Your task to perform on an android device: allow notifications from all sites in the chrome app Image 0: 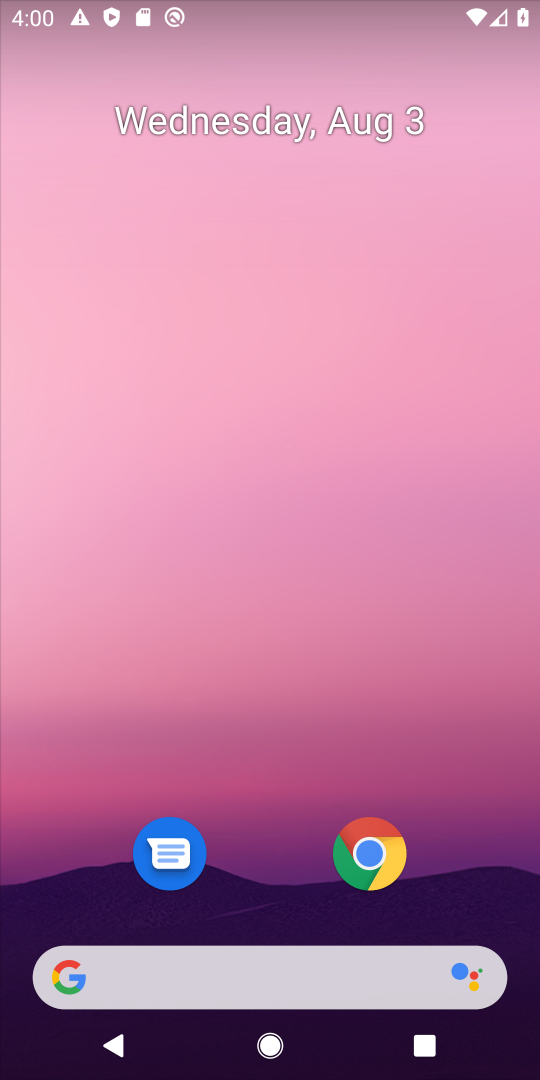
Step 0: drag from (269, 903) to (283, 21)
Your task to perform on an android device: allow notifications from all sites in the chrome app Image 1: 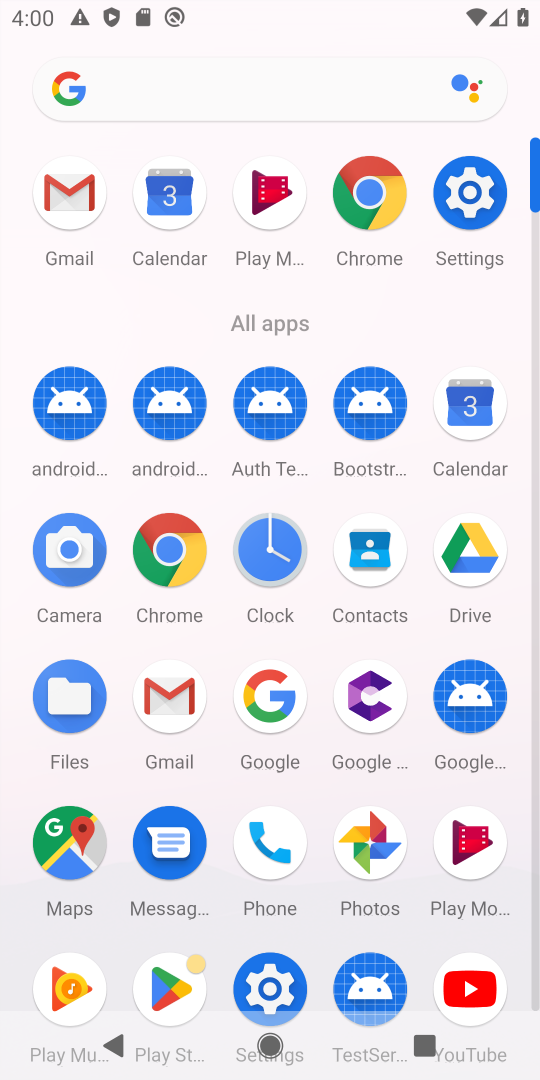
Step 1: click (375, 184)
Your task to perform on an android device: allow notifications from all sites in the chrome app Image 2: 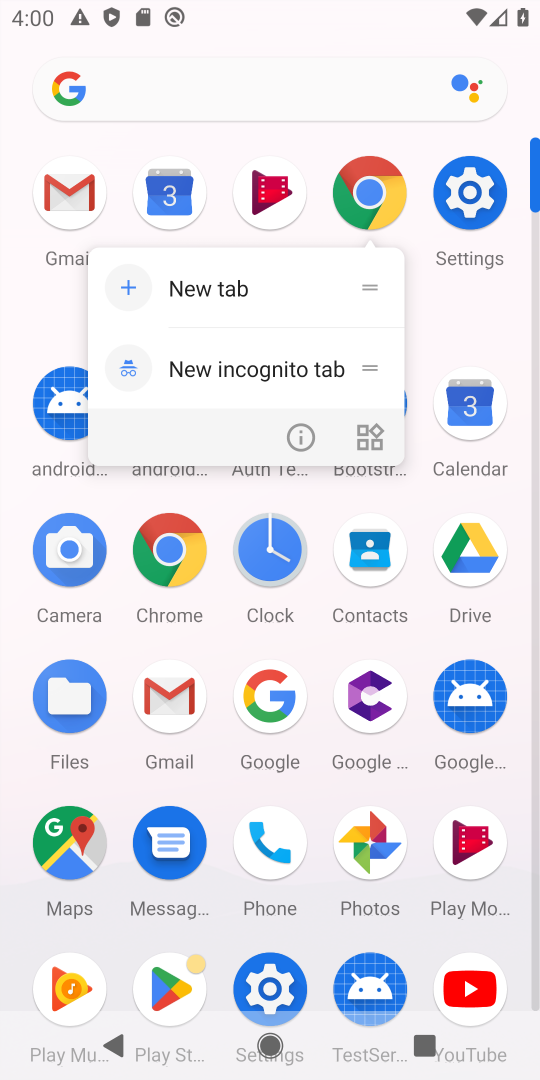
Step 2: click (374, 196)
Your task to perform on an android device: allow notifications from all sites in the chrome app Image 3: 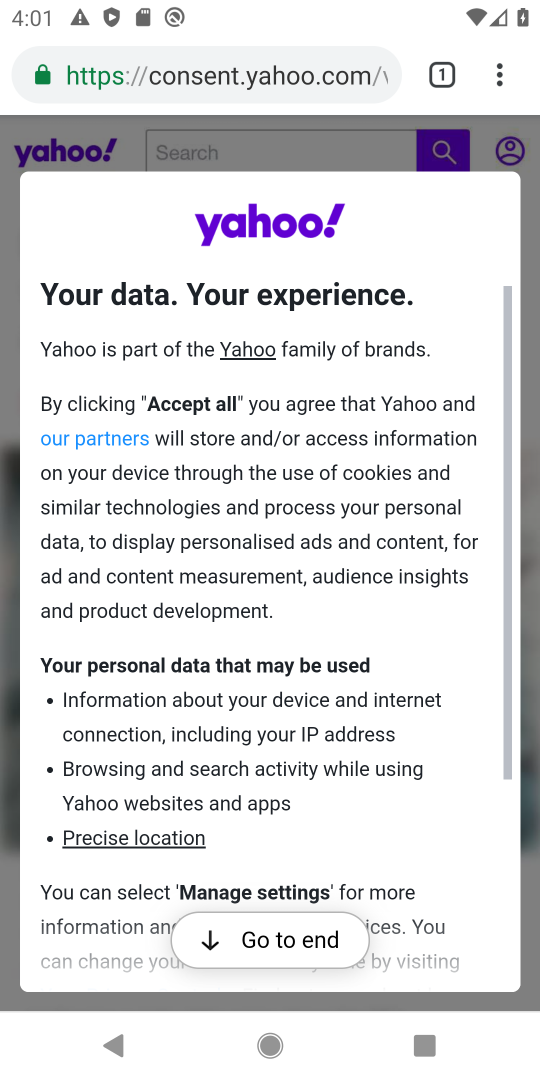
Step 3: click (501, 85)
Your task to perform on an android device: allow notifications from all sites in the chrome app Image 4: 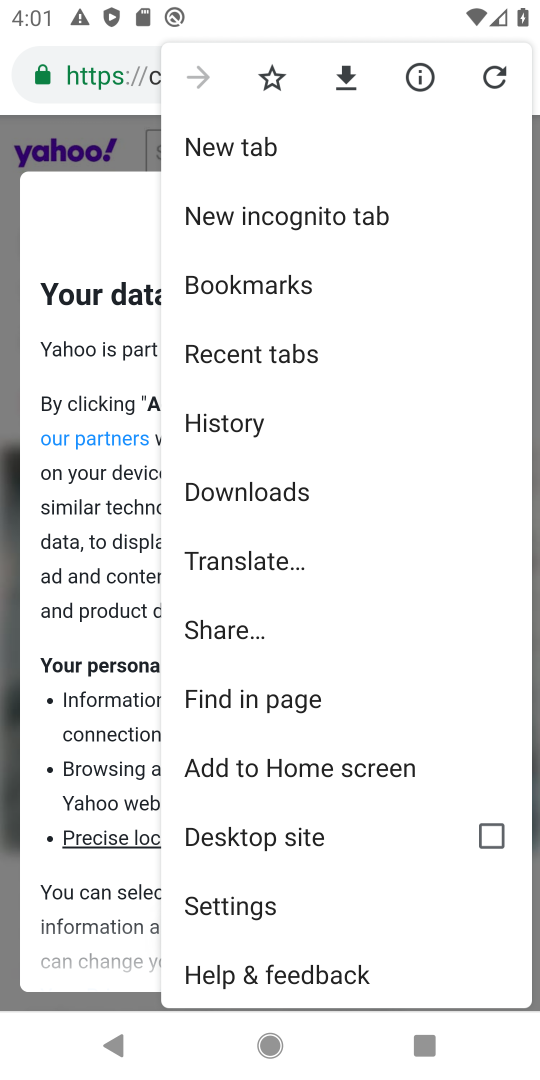
Step 4: click (234, 898)
Your task to perform on an android device: allow notifications from all sites in the chrome app Image 5: 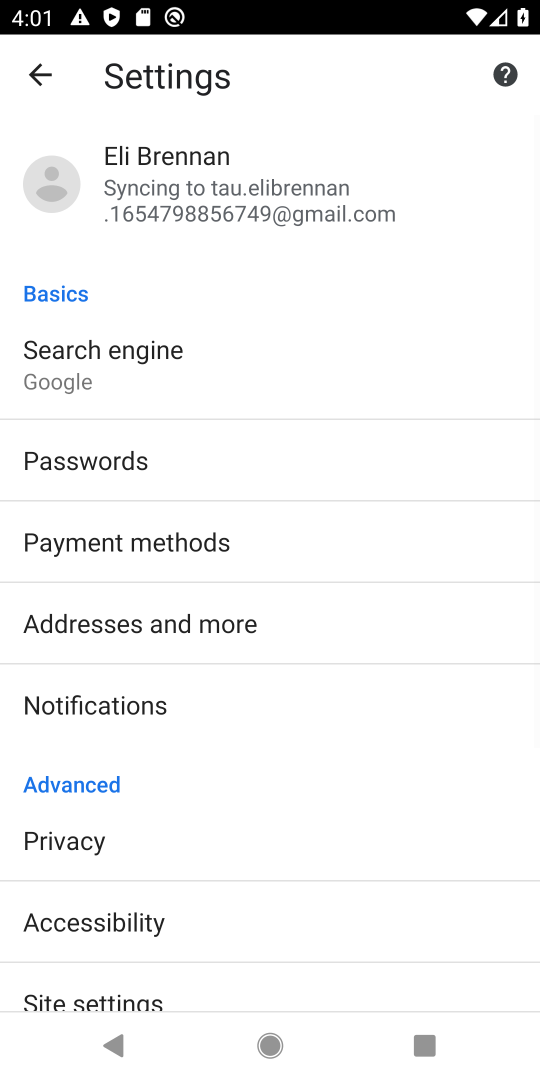
Step 5: drag from (156, 910) to (155, 328)
Your task to perform on an android device: allow notifications from all sites in the chrome app Image 6: 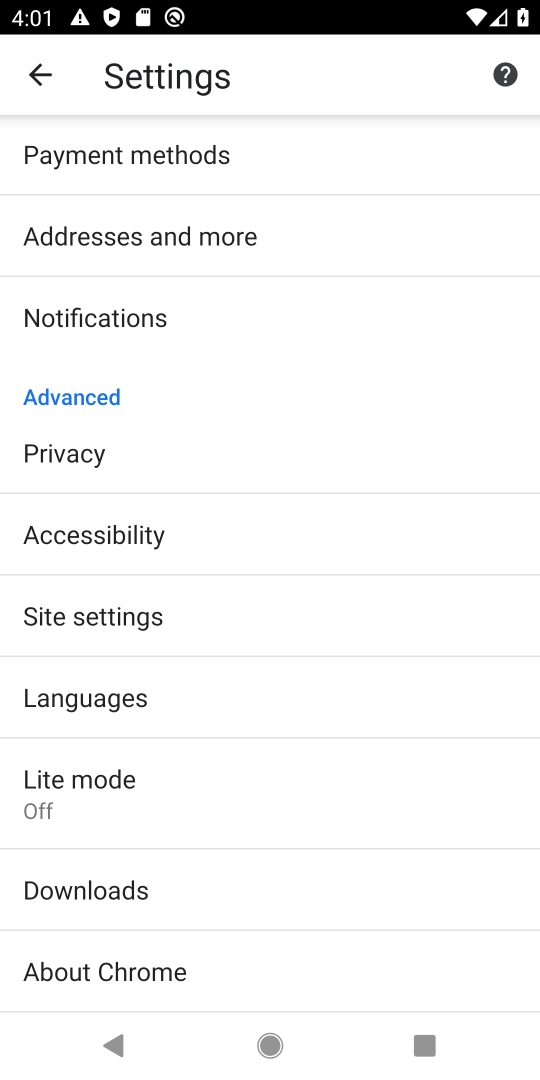
Step 6: click (97, 620)
Your task to perform on an android device: allow notifications from all sites in the chrome app Image 7: 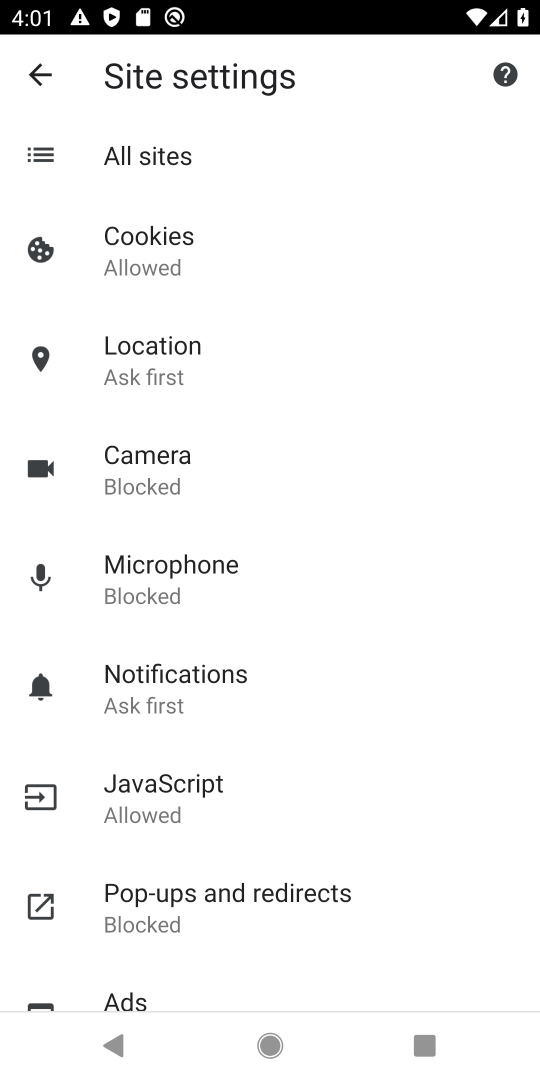
Step 7: click (167, 663)
Your task to perform on an android device: allow notifications from all sites in the chrome app Image 8: 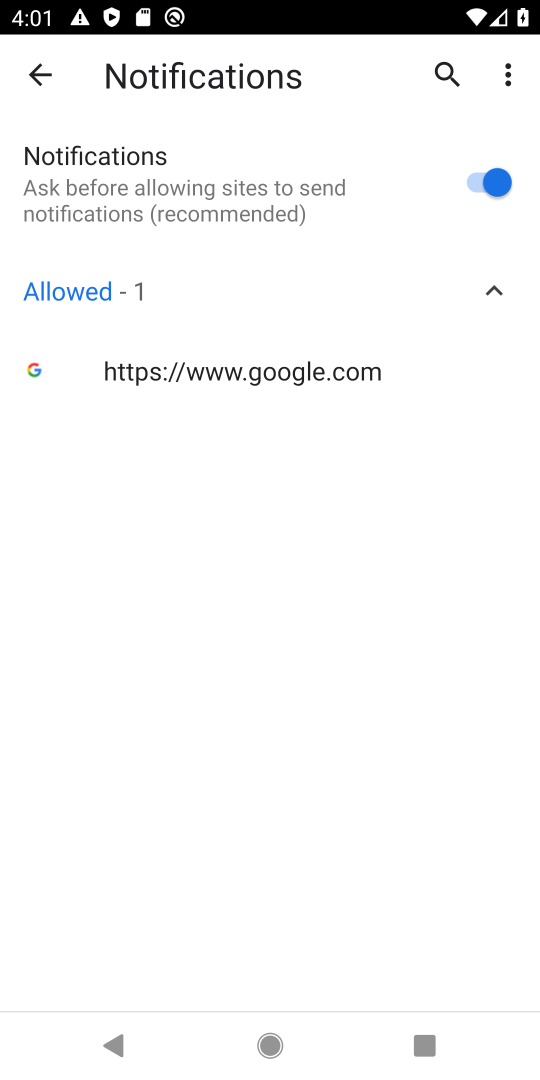
Step 8: task complete